Your task to perform on an android device: star an email in the gmail app Image 0: 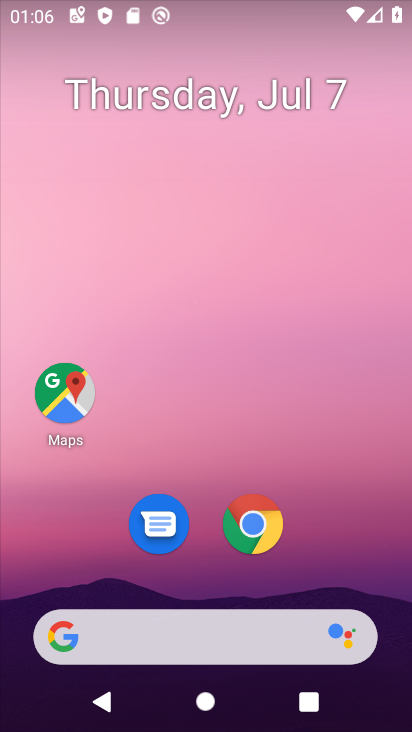
Step 0: drag from (241, 471) to (266, 37)
Your task to perform on an android device: star an email in the gmail app Image 1: 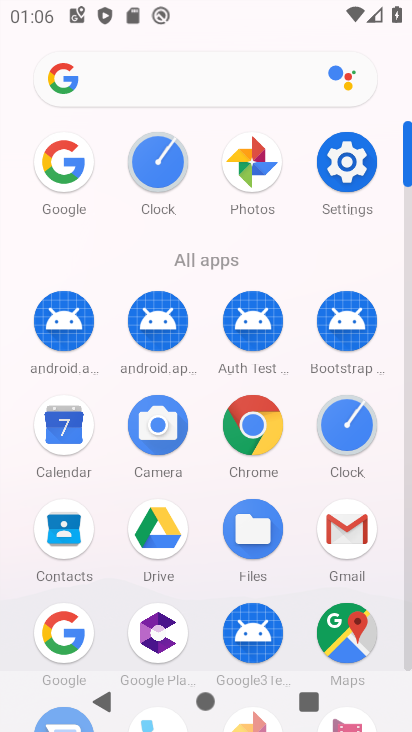
Step 1: click (346, 522)
Your task to perform on an android device: star an email in the gmail app Image 2: 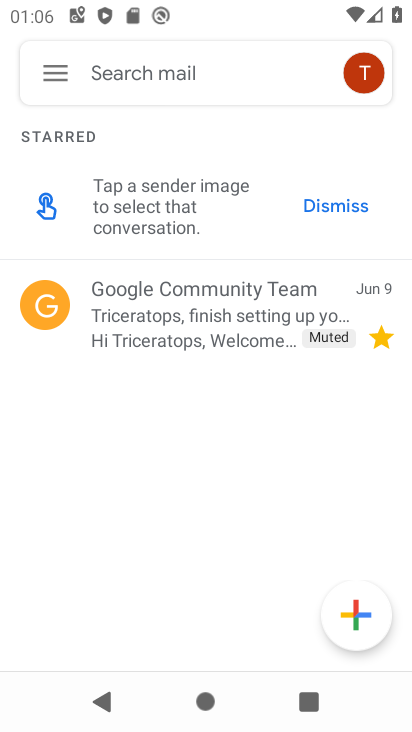
Step 2: task complete